Your task to perform on an android device: Do I have any events tomorrow? Image 0: 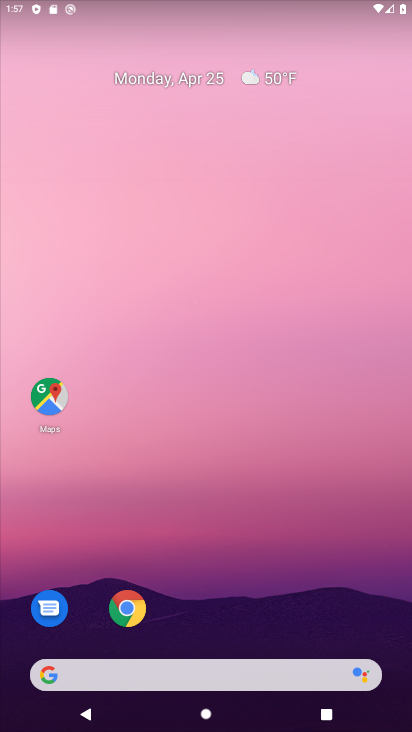
Step 0: drag from (211, 630) to (212, 282)
Your task to perform on an android device: Do I have any events tomorrow? Image 1: 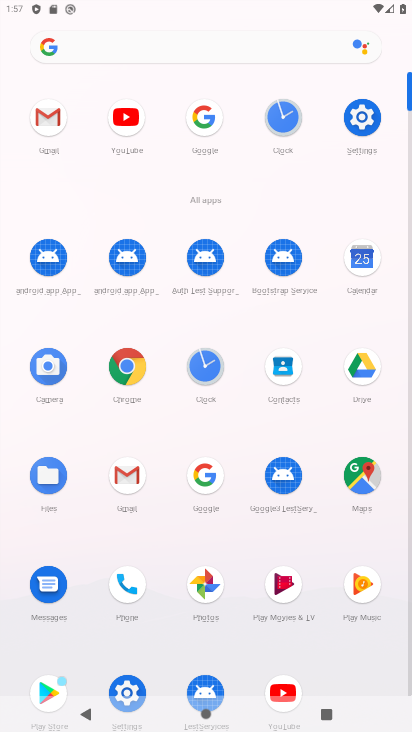
Step 1: click (351, 262)
Your task to perform on an android device: Do I have any events tomorrow? Image 2: 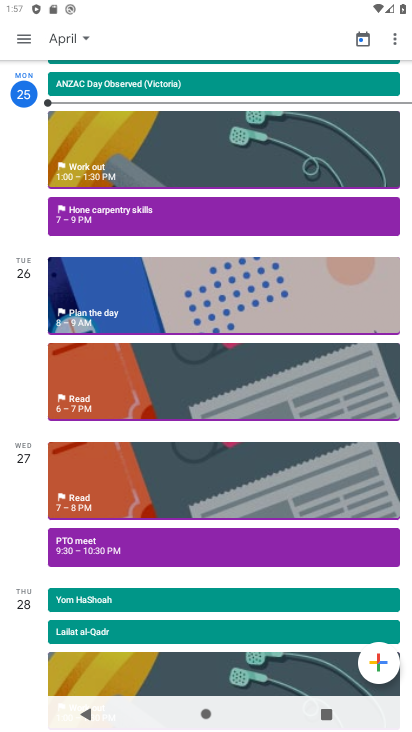
Step 2: click (65, 35)
Your task to perform on an android device: Do I have any events tomorrow? Image 3: 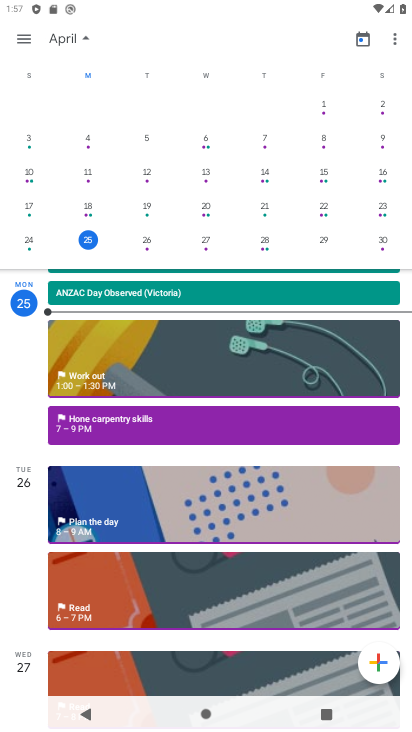
Step 3: click (137, 249)
Your task to perform on an android device: Do I have any events tomorrow? Image 4: 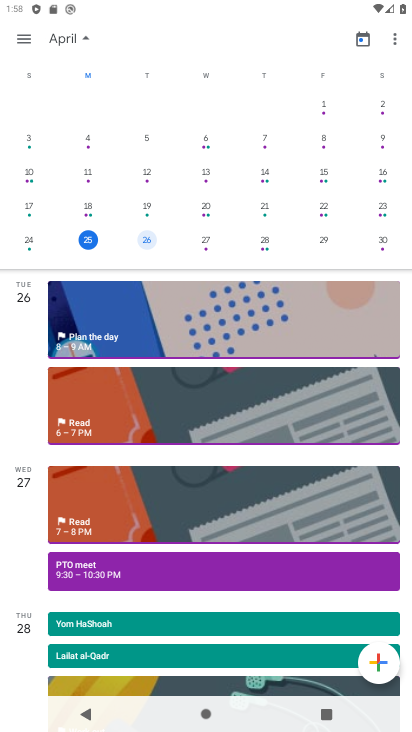
Step 4: click (148, 248)
Your task to perform on an android device: Do I have any events tomorrow? Image 5: 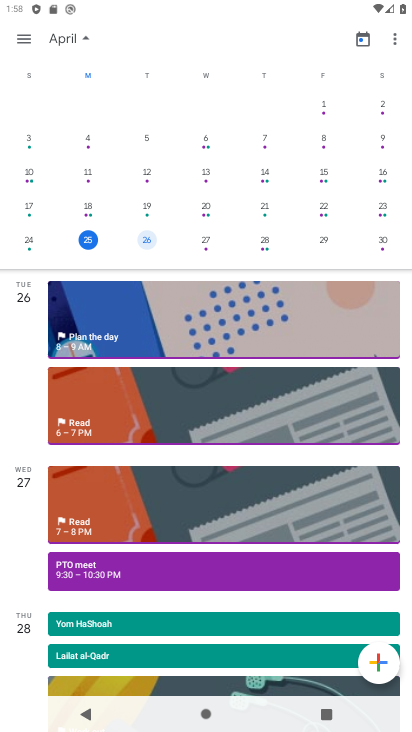
Step 5: task complete